Your task to perform on an android device: View the shopping cart on walmart.com. Search for bose soundsport free on walmart.com, select the first entry, and add it to the cart. Image 0: 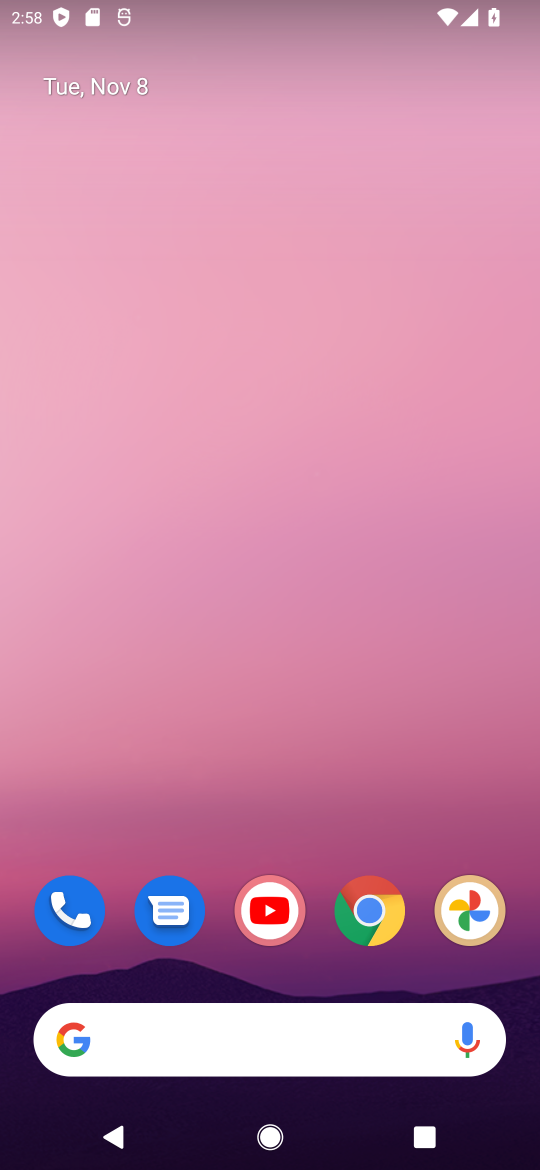
Step 0: drag from (304, 992) to (375, 211)
Your task to perform on an android device: View the shopping cart on walmart.com. Search for bose soundsport free on walmart.com, select the first entry, and add it to the cart. Image 1: 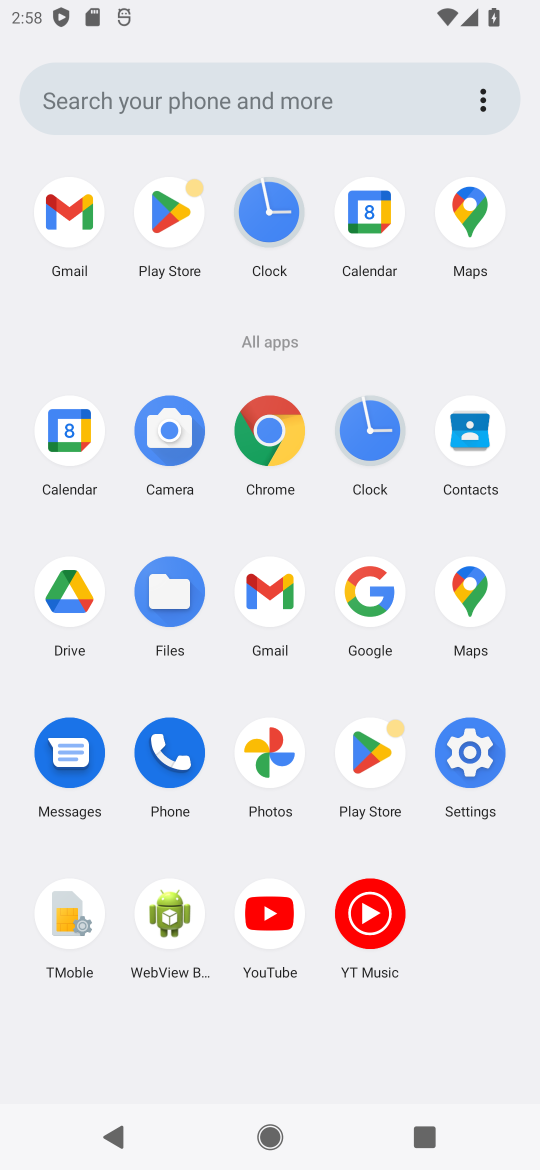
Step 1: click (261, 428)
Your task to perform on an android device: View the shopping cart on walmart.com. Search for bose soundsport free on walmart.com, select the first entry, and add it to the cart. Image 2: 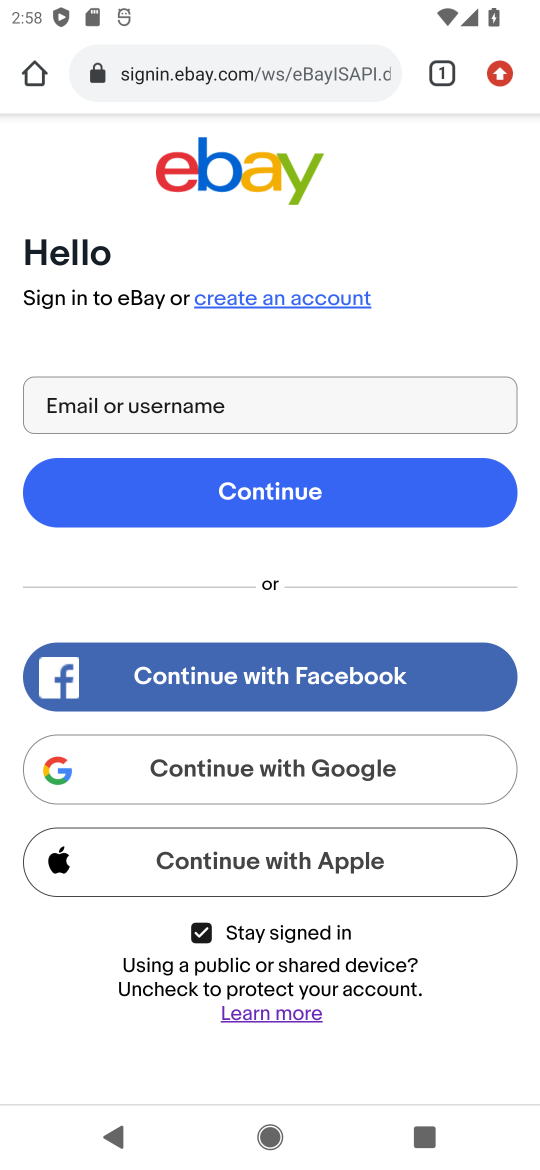
Step 2: click (276, 75)
Your task to perform on an android device: View the shopping cart on walmart.com. Search for bose soundsport free on walmart.com, select the first entry, and add it to the cart. Image 3: 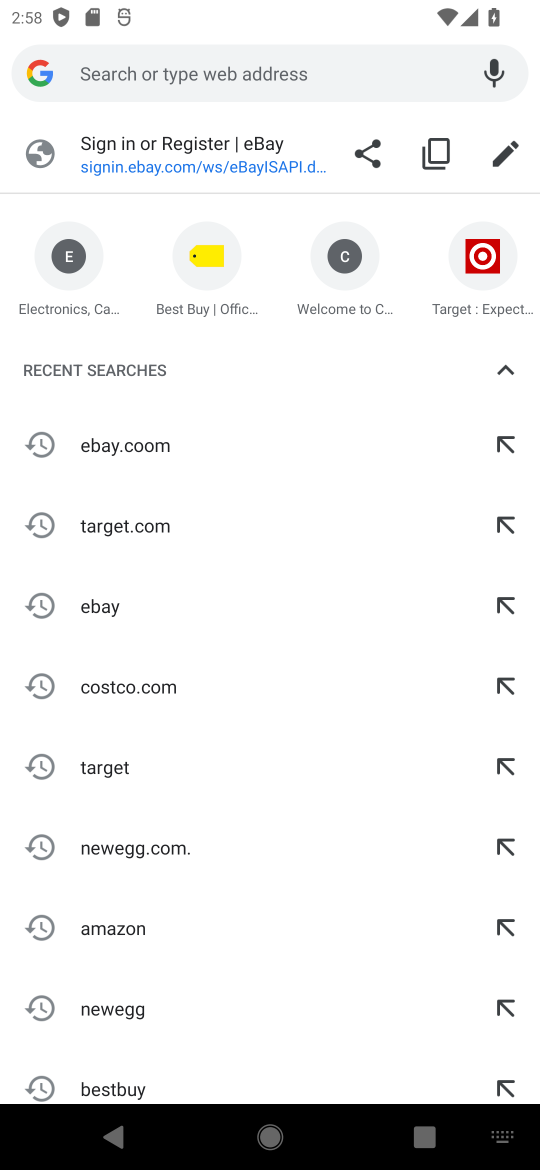
Step 3: type "walmart.com"
Your task to perform on an android device: View the shopping cart on walmart.com. Search for bose soundsport free on walmart.com, select the first entry, and add it to the cart. Image 4: 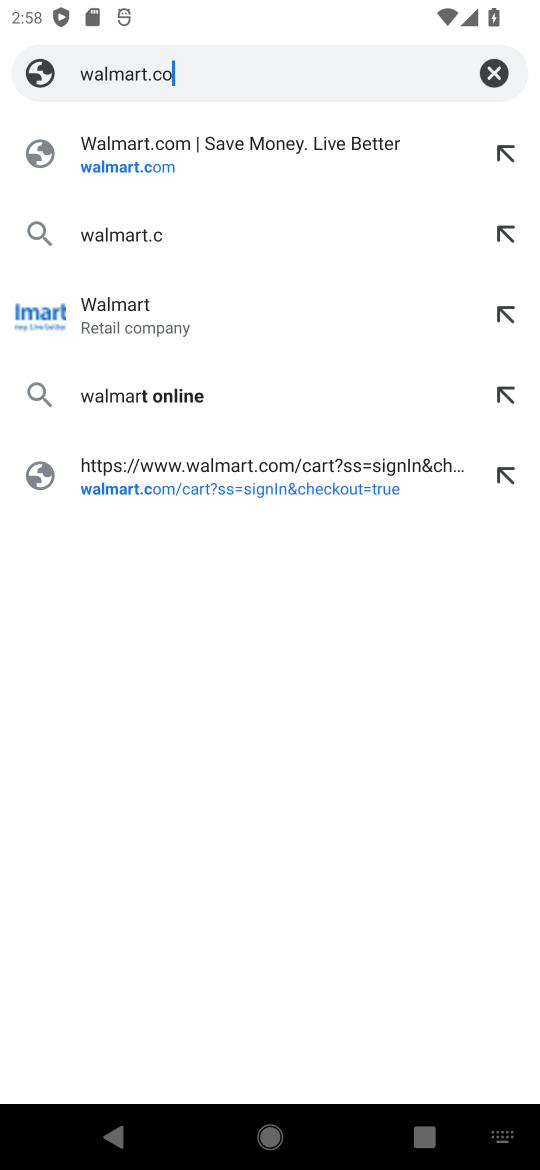
Step 4: press enter
Your task to perform on an android device: View the shopping cart on walmart.com. Search for bose soundsport free on walmart.com, select the first entry, and add it to the cart. Image 5: 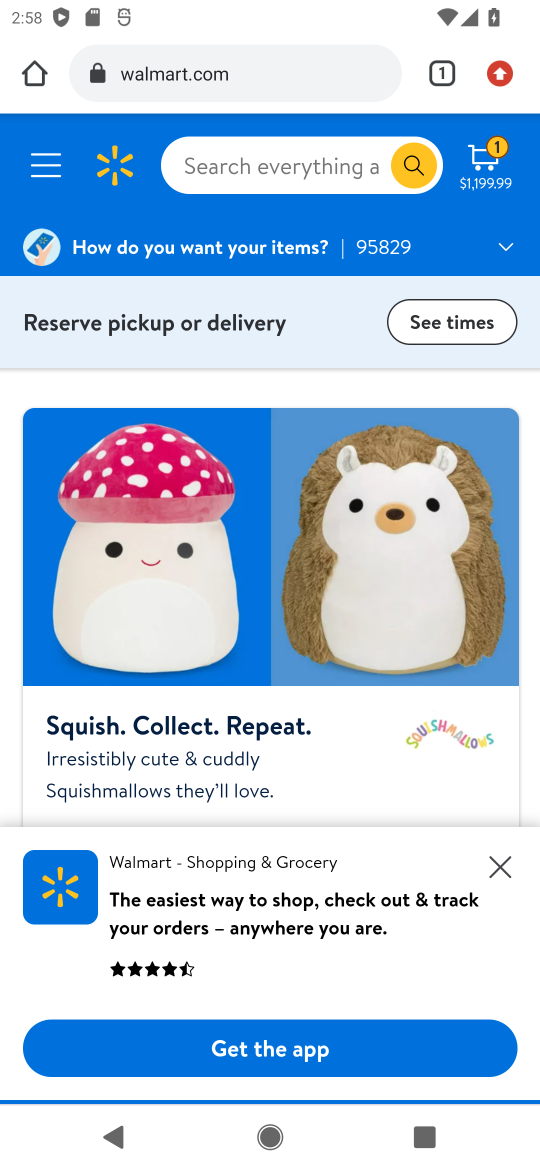
Step 5: click (486, 160)
Your task to perform on an android device: View the shopping cart on walmart.com. Search for bose soundsport free on walmart.com, select the first entry, and add it to the cart. Image 6: 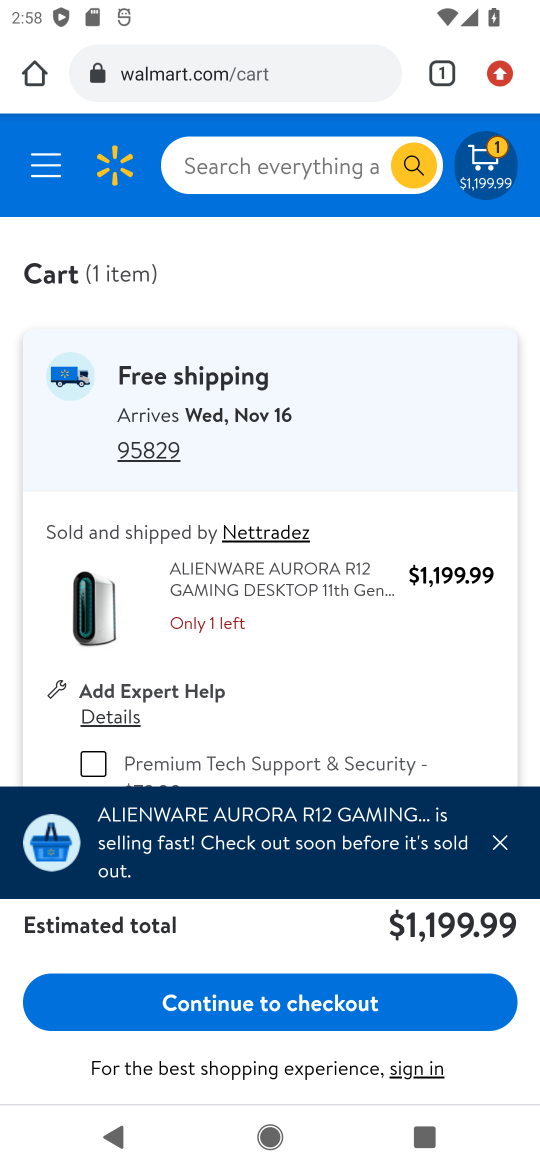
Step 6: click (300, 159)
Your task to perform on an android device: View the shopping cart on walmart.com. Search for bose soundsport free on walmart.com, select the first entry, and add it to the cart. Image 7: 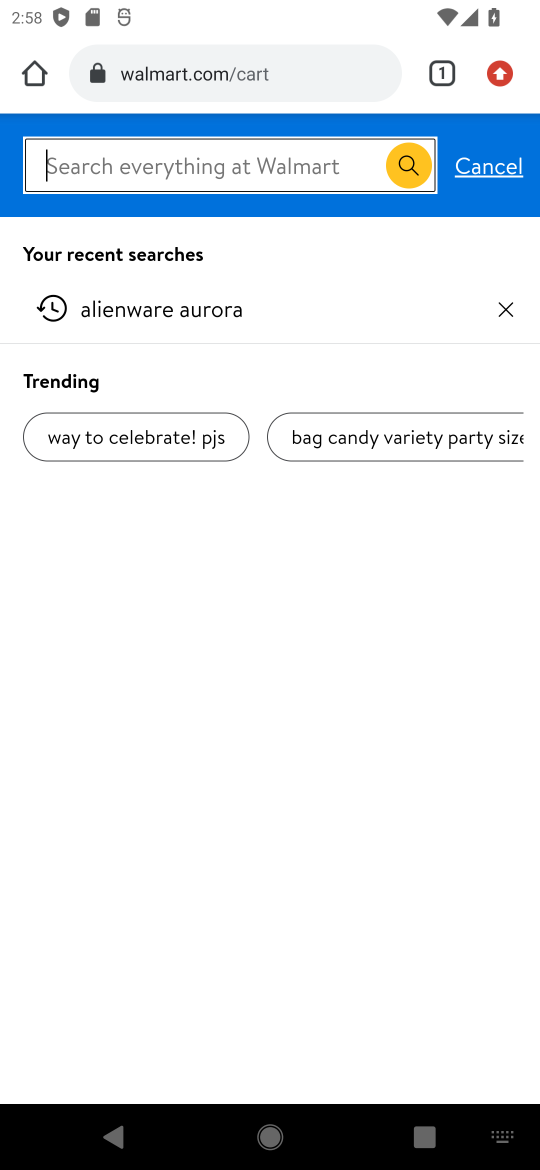
Step 7: type "bose soundsport free"
Your task to perform on an android device: View the shopping cart on walmart.com. Search for bose soundsport free on walmart.com, select the first entry, and add it to the cart. Image 8: 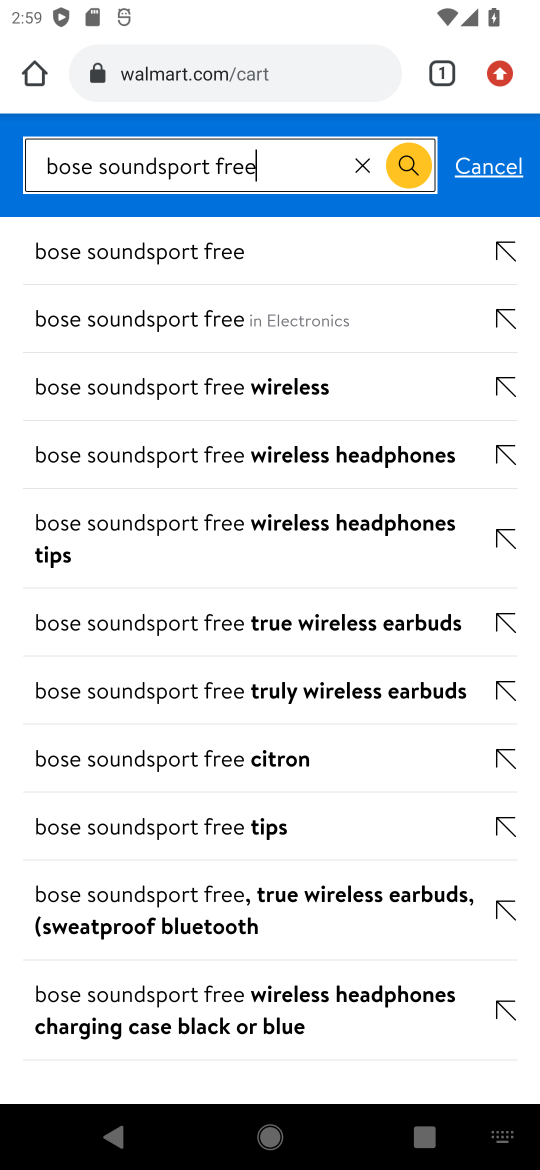
Step 8: press enter
Your task to perform on an android device: View the shopping cart on walmart.com. Search for bose soundsport free on walmart.com, select the first entry, and add it to the cart. Image 9: 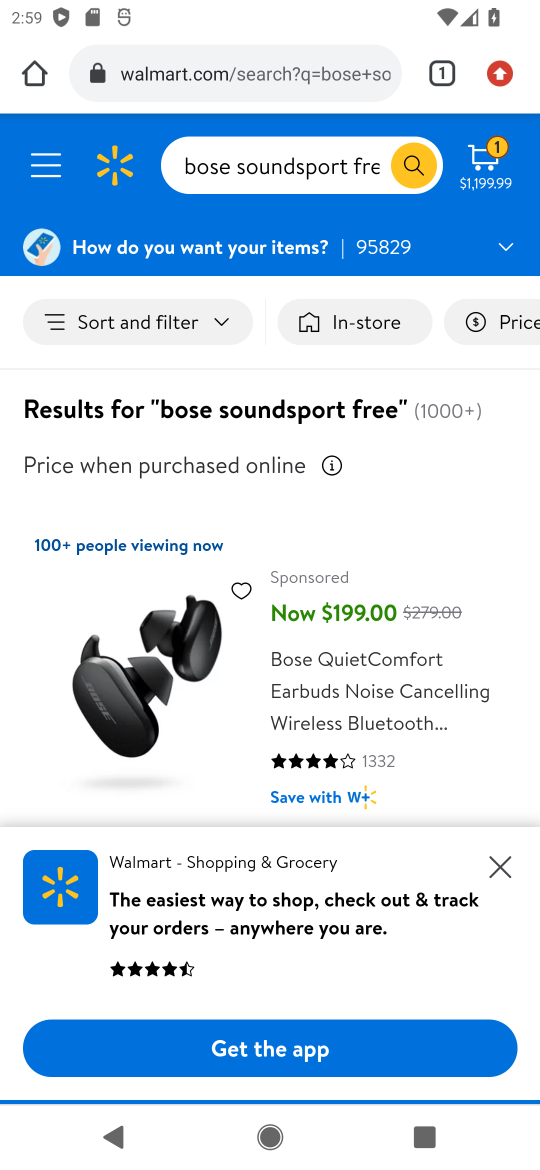
Step 9: task complete